Your task to perform on an android device: What's the weather today? Image 0: 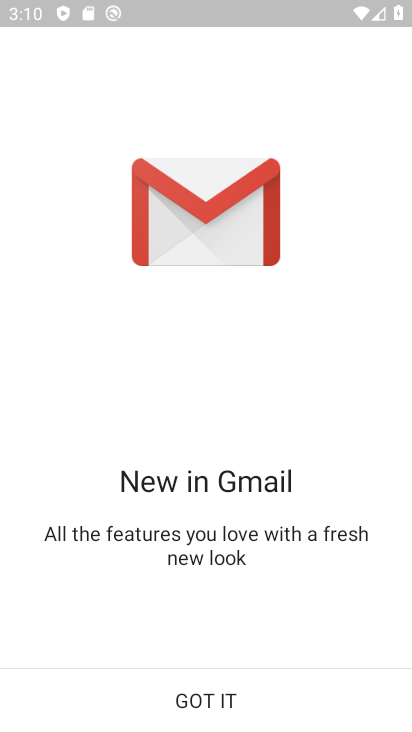
Step 0: press home button
Your task to perform on an android device: What's the weather today? Image 1: 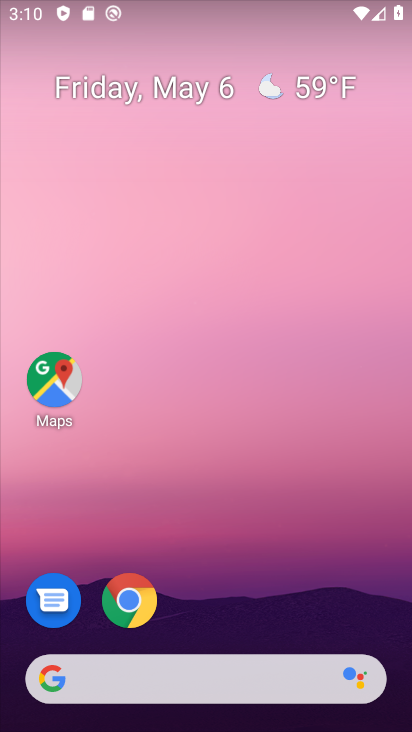
Step 1: click (323, 88)
Your task to perform on an android device: What's the weather today? Image 2: 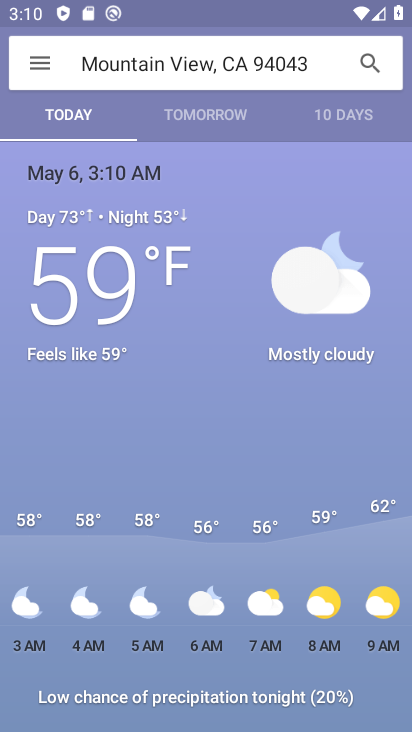
Step 2: task complete